Your task to perform on an android device: Open accessibility settings Image 0: 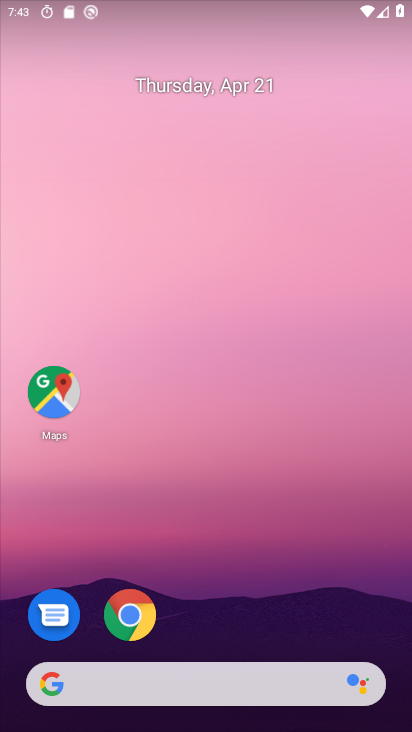
Step 0: press home button
Your task to perform on an android device: Open accessibility settings Image 1: 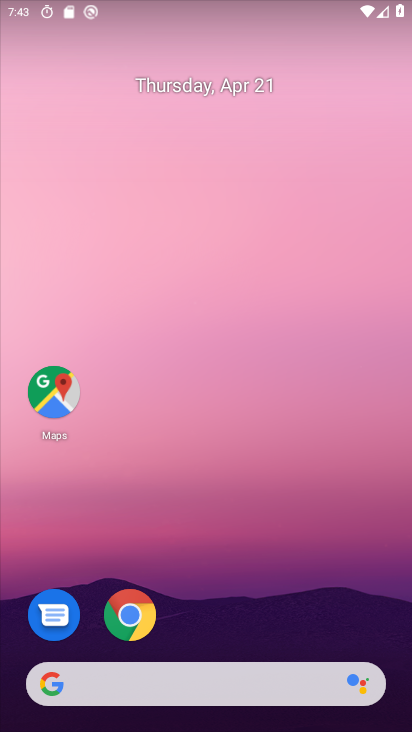
Step 1: drag from (195, 685) to (289, 87)
Your task to perform on an android device: Open accessibility settings Image 2: 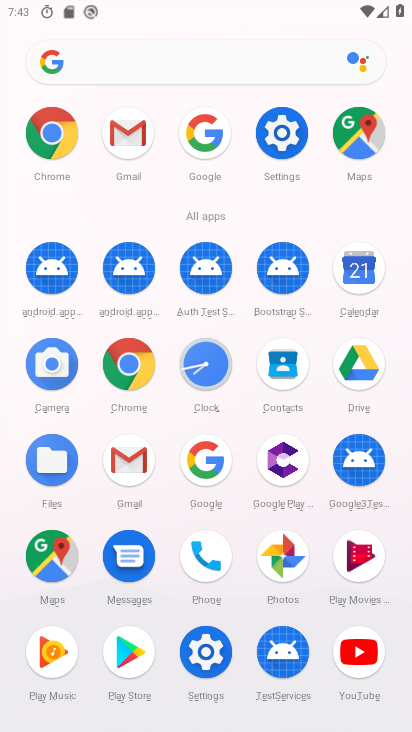
Step 2: click (288, 132)
Your task to perform on an android device: Open accessibility settings Image 3: 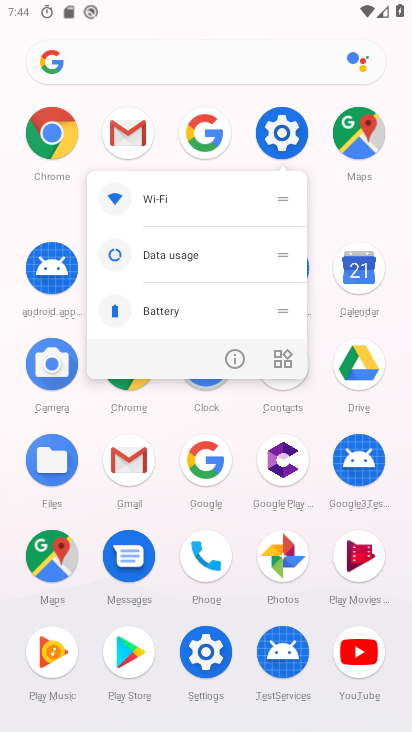
Step 3: click (287, 131)
Your task to perform on an android device: Open accessibility settings Image 4: 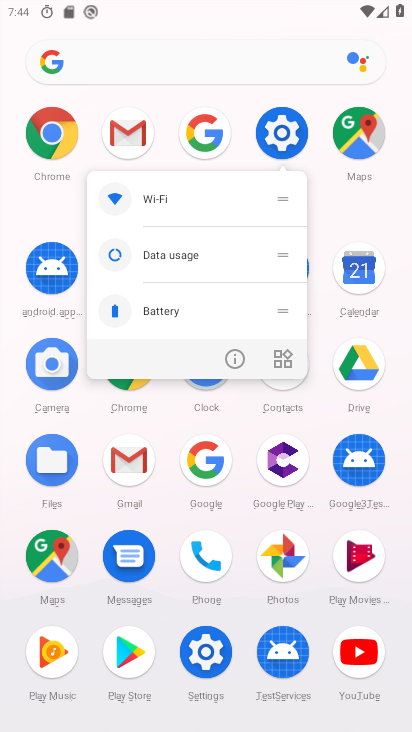
Step 4: click (275, 133)
Your task to perform on an android device: Open accessibility settings Image 5: 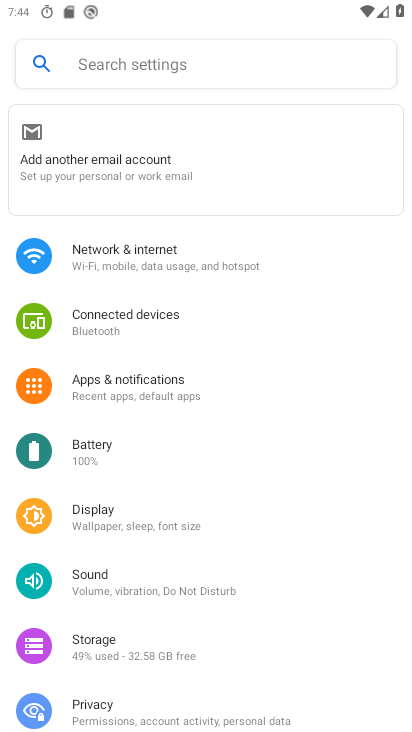
Step 5: drag from (231, 599) to (324, 203)
Your task to perform on an android device: Open accessibility settings Image 6: 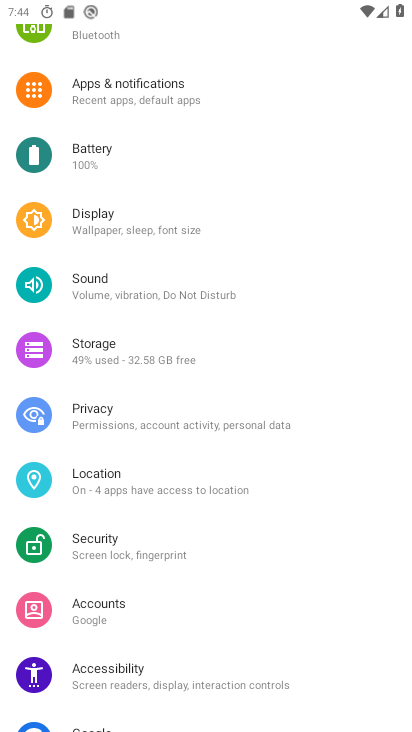
Step 6: click (134, 674)
Your task to perform on an android device: Open accessibility settings Image 7: 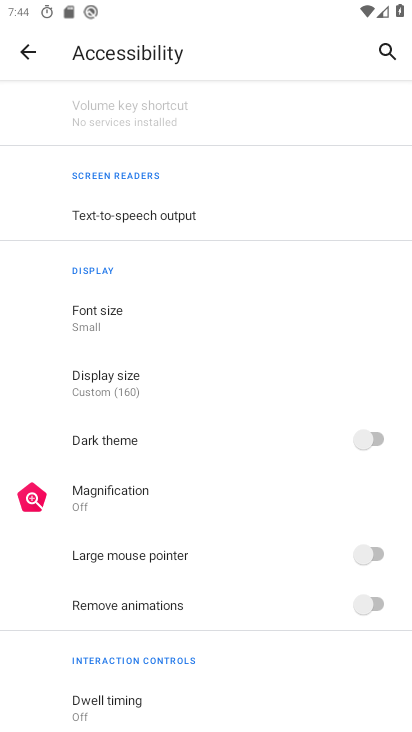
Step 7: task complete